Your task to perform on an android device: Do I have any events tomorrow? Image 0: 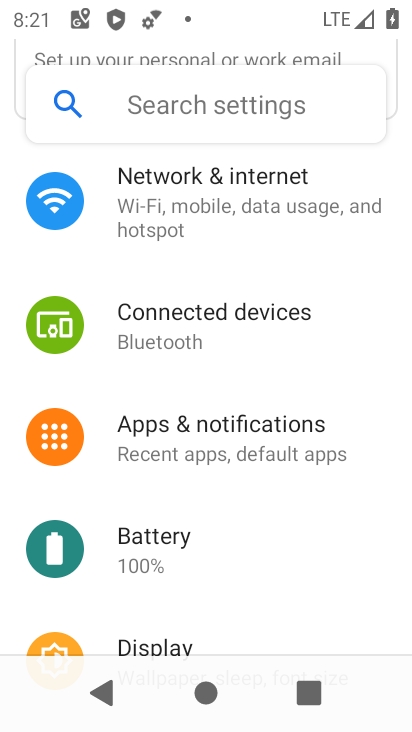
Step 0: press home button
Your task to perform on an android device: Do I have any events tomorrow? Image 1: 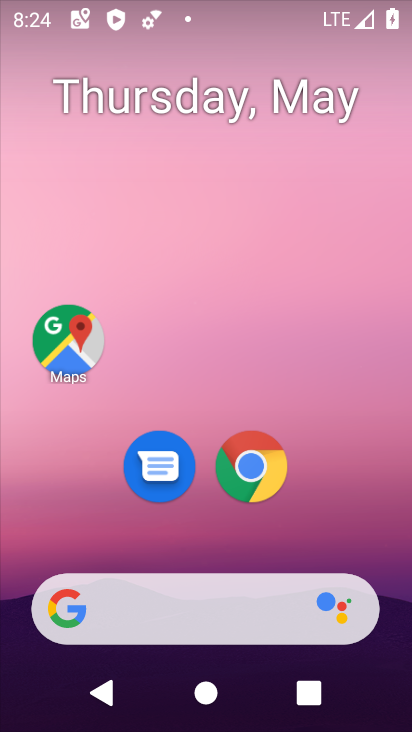
Step 1: drag from (340, 556) to (286, 11)
Your task to perform on an android device: Do I have any events tomorrow? Image 2: 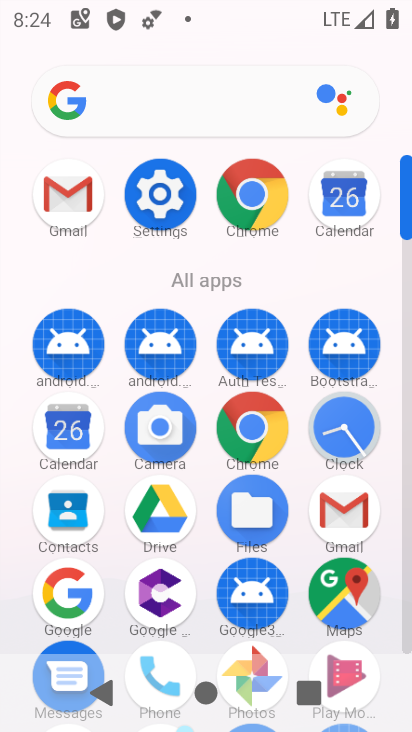
Step 2: click (341, 199)
Your task to perform on an android device: Do I have any events tomorrow? Image 3: 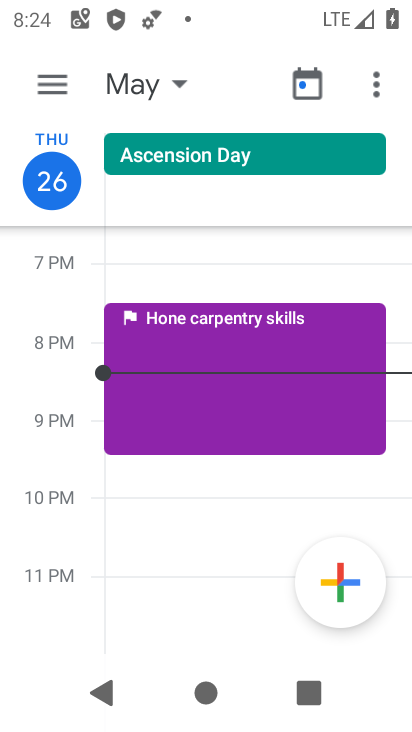
Step 3: click (50, 85)
Your task to perform on an android device: Do I have any events tomorrow? Image 4: 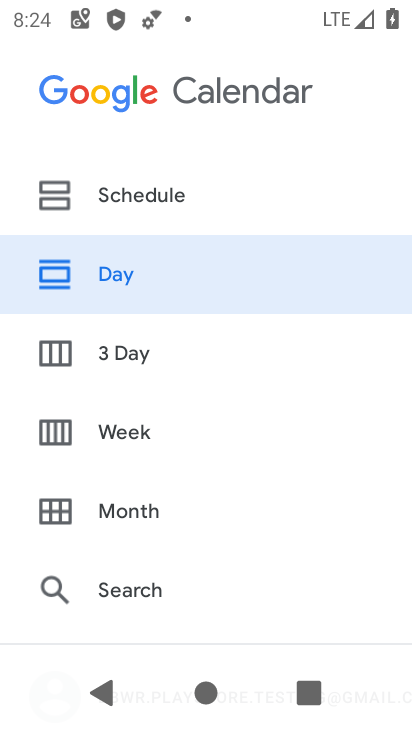
Step 4: click (117, 191)
Your task to perform on an android device: Do I have any events tomorrow? Image 5: 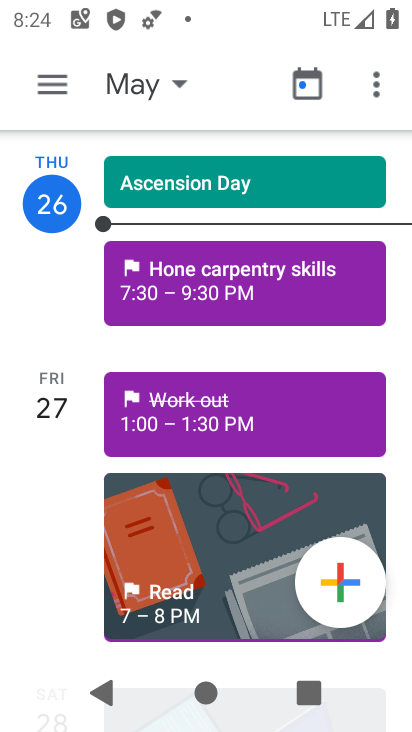
Step 5: click (185, 420)
Your task to perform on an android device: Do I have any events tomorrow? Image 6: 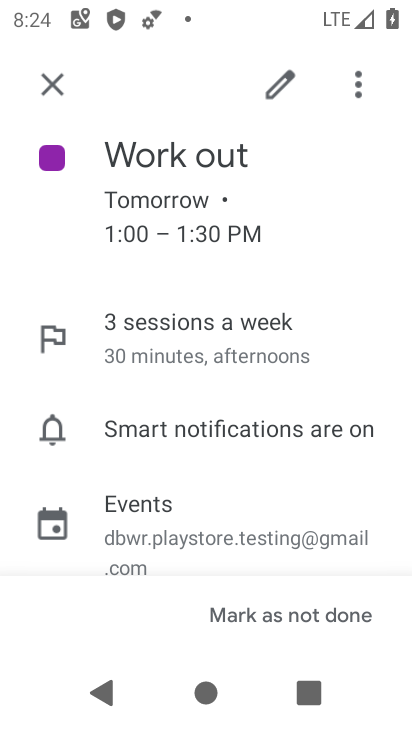
Step 6: task complete